Your task to perform on an android device: refresh tabs in the chrome app Image 0: 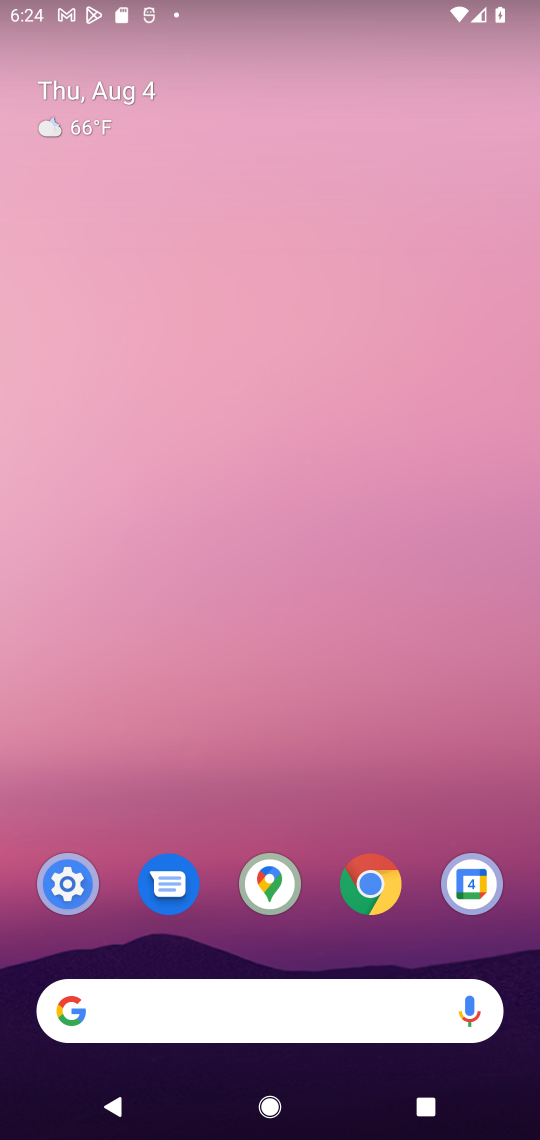
Step 0: click (367, 913)
Your task to perform on an android device: refresh tabs in the chrome app Image 1: 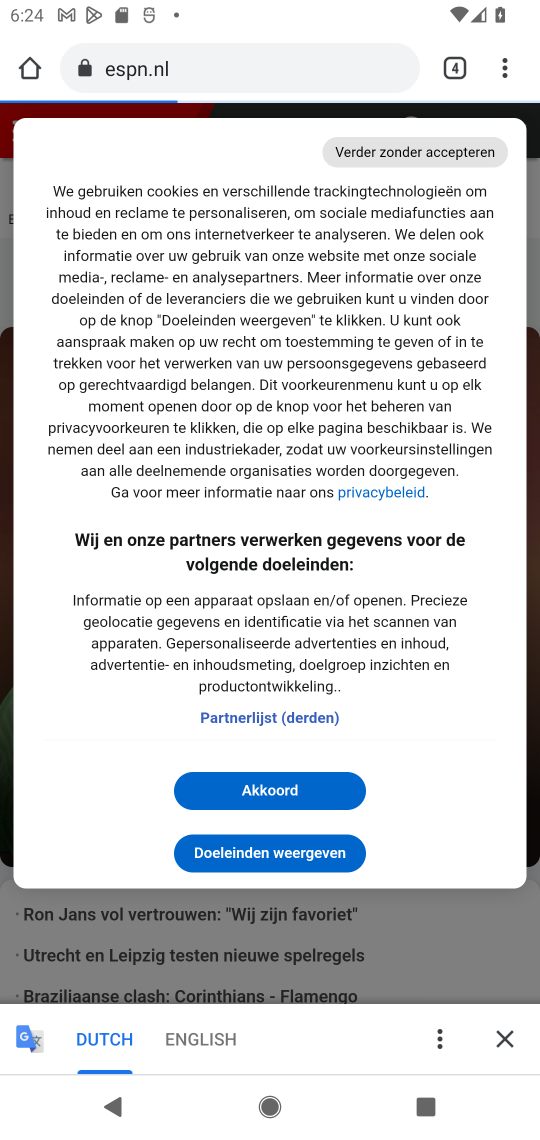
Step 1: task complete